Your task to perform on an android device: check data usage Image 0: 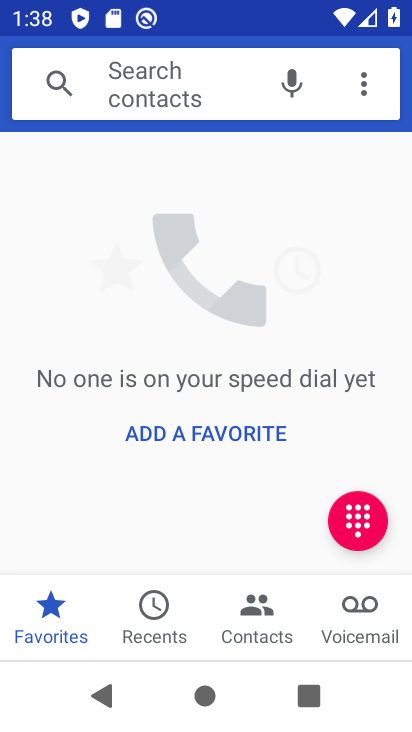
Step 0: press home button
Your task to perform on an android device: check data usage Image 1: 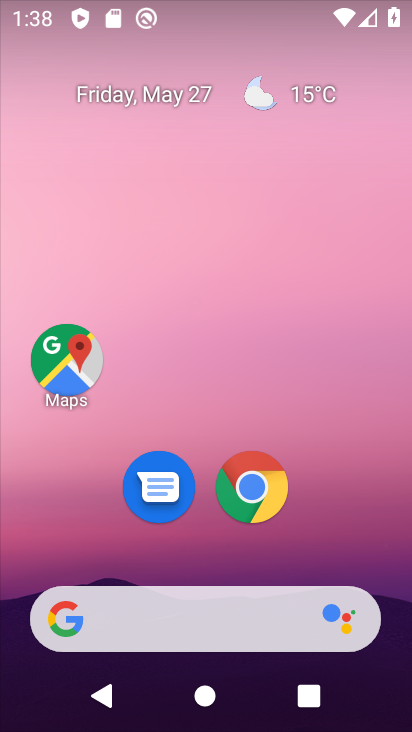
Step 1: drag from (349, 528) to (301, 165)
Your task to perform on an android device: check data usage Image 2: 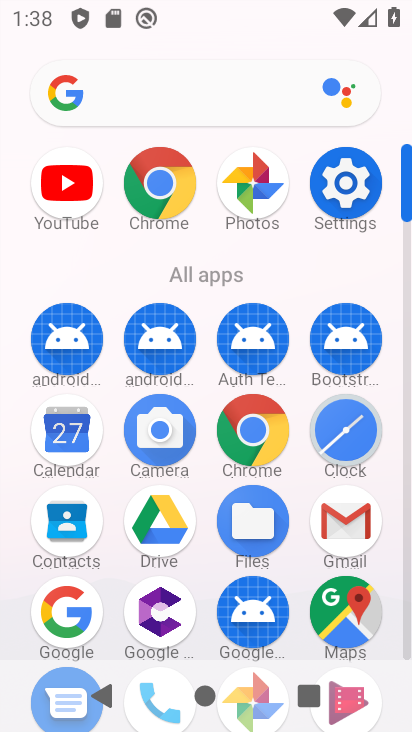
Step 2: click (346, 173)
Your task to perform on an android device: check data usage Image 3: 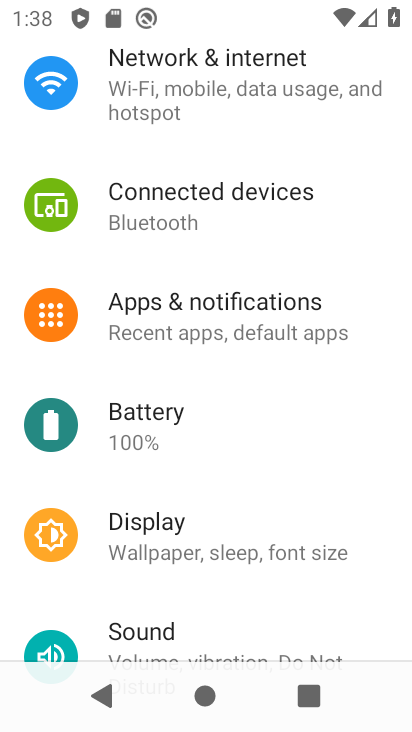
Step 3: drag from (255, 164) to (203, 555)
Your task to perform on an android device: check data usage Image 4: 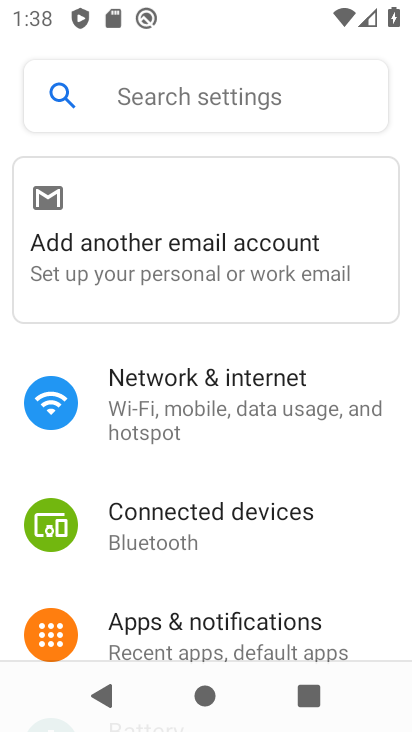
Step 4: click (94, 374)
Your task to perform on an android device: check data usage Image 5: 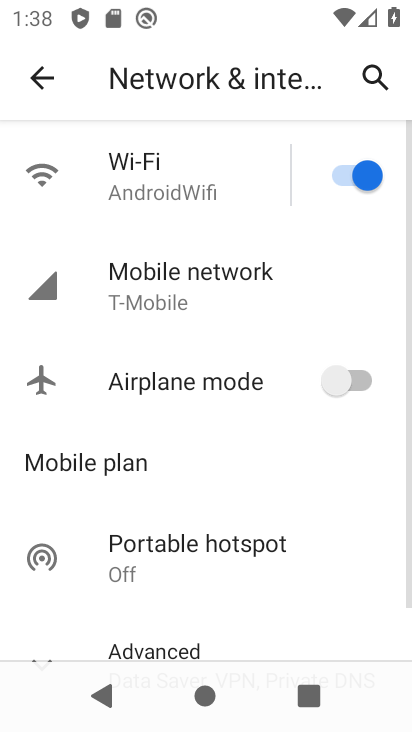
Step 5: click (172, 281)
Your task to perform on an android device: check data usage Image 6: 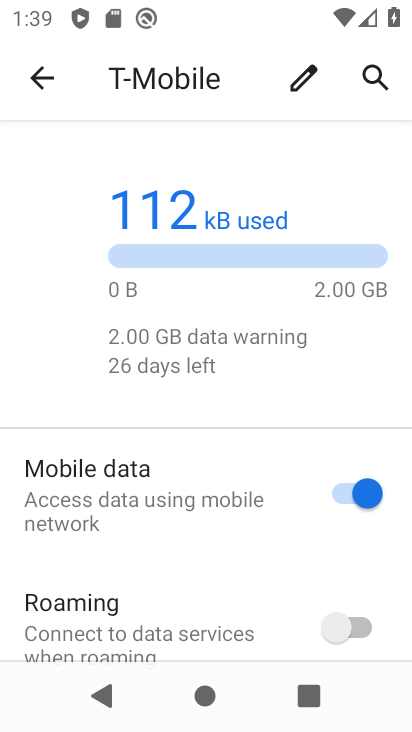
Step 6: task complete